Your task to perform on an android device: turn on priority inbox in the gmail app Image 0: 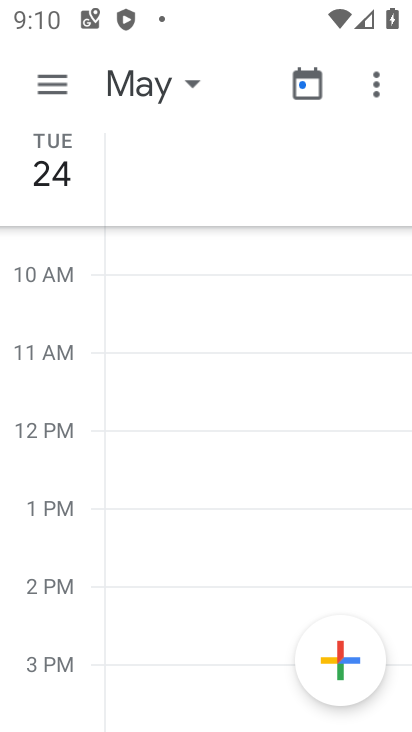
Step 0: press home button
Your task to perform on an android device: turn on priority inbox in the gmail app Image 1: 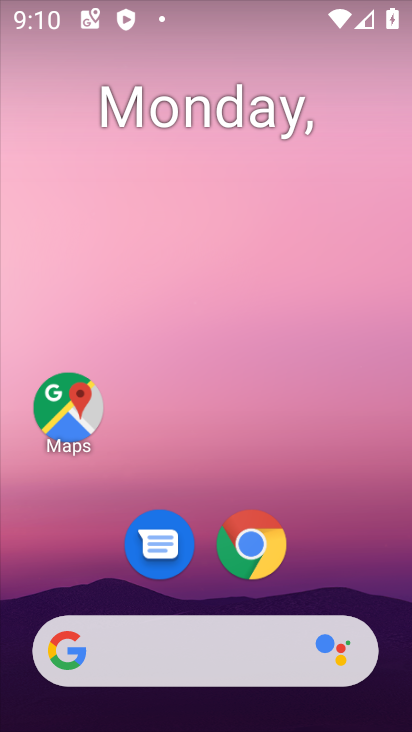
Step 1: drag from (324, 572) to (296, 342)
Your task to perform on an android device: turn on priority inbox in the gmail app Image 2: 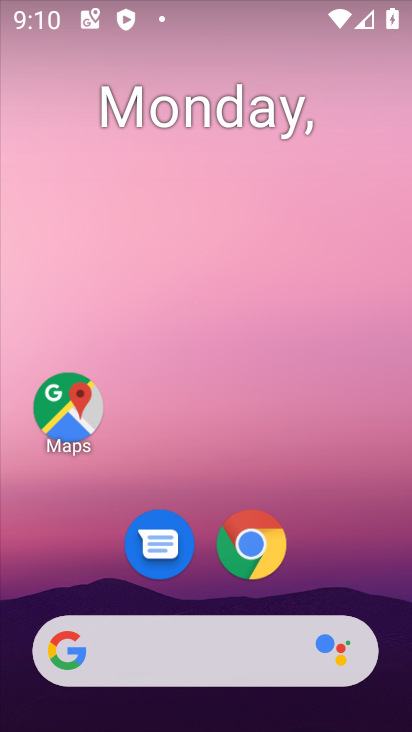
Step 2: drag from (315, 454) to (296, 15)
Your task to perform on an android device: turn on priority inbox in the gmail app Image 3: 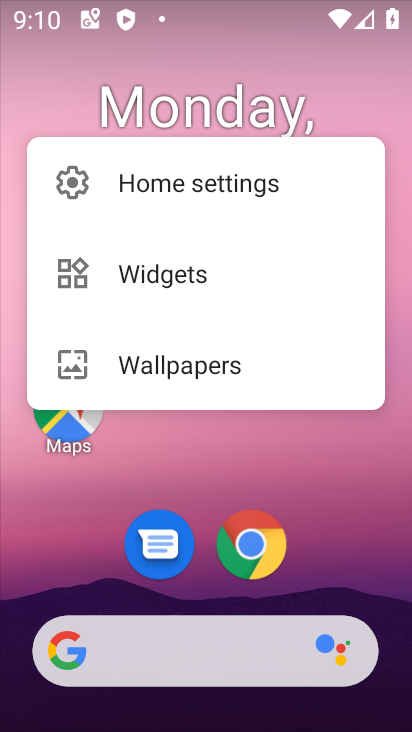
Step 3: click (309, 457)
Your task to perform on an android device: turn on priority inbox in the gmail app Image 4: 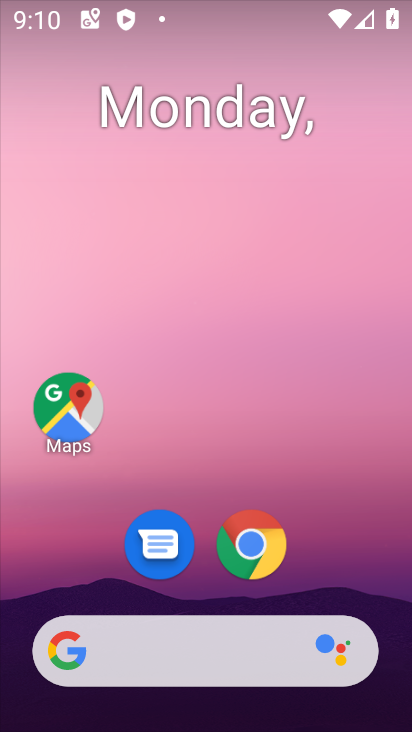
Step 4: drag from (342, 571) to (278, 74)
Your task to perform on an android device: turn on priority inbox in the gmail app Image 5: 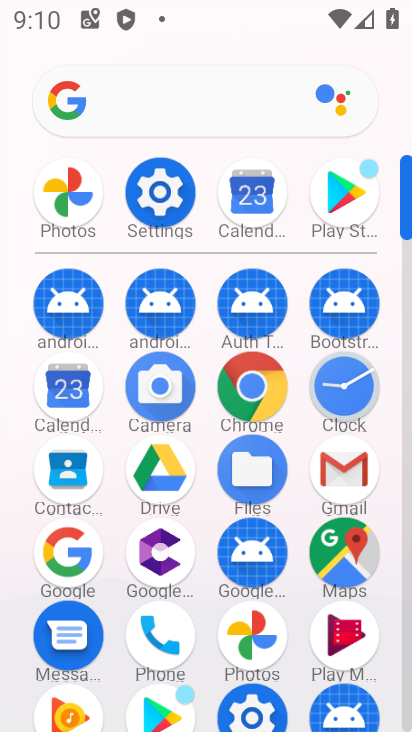
Step 5: click (332, 461)
Your task to perform on an android device: turn on priority inbox in the gmail app Image 6: 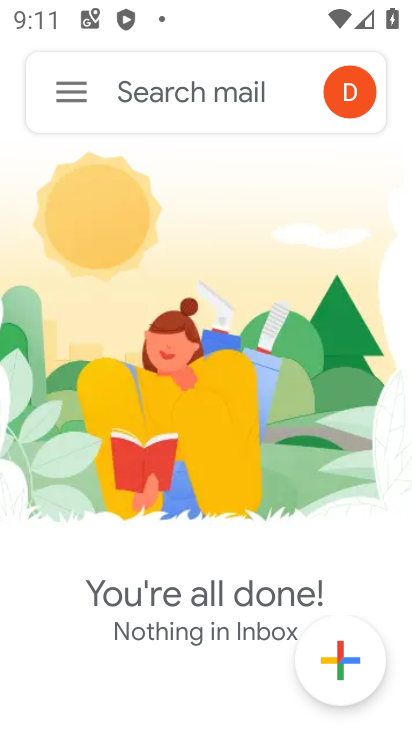
Step 6: click (70, 95)
Your task to perform on an android device: turn on priority inbox in the gmail app Image 7: 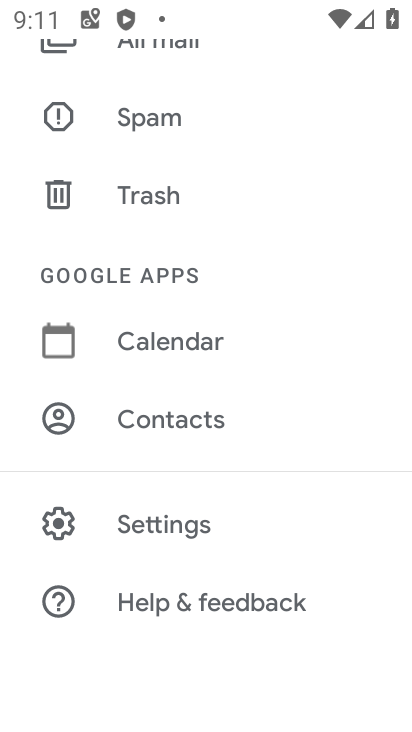
Step 7: click (175, 524)
Your task to perform on an android device: turn on priority inbox in the gmail app Image 8: 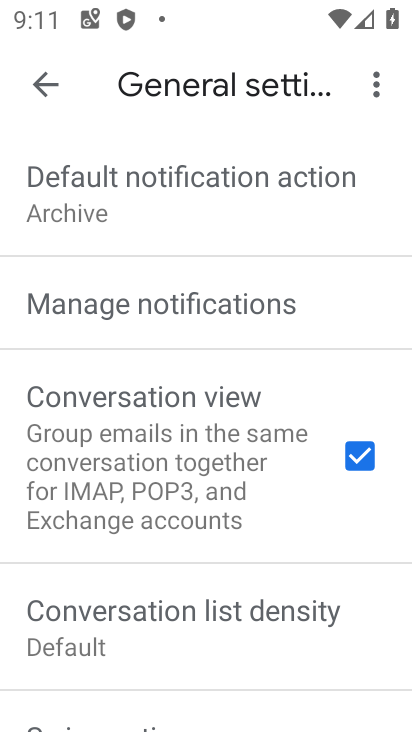
Step 8: click (48, 87)
Your task to perform on an android device: turn on priority inbox in the gmail app Image 9: 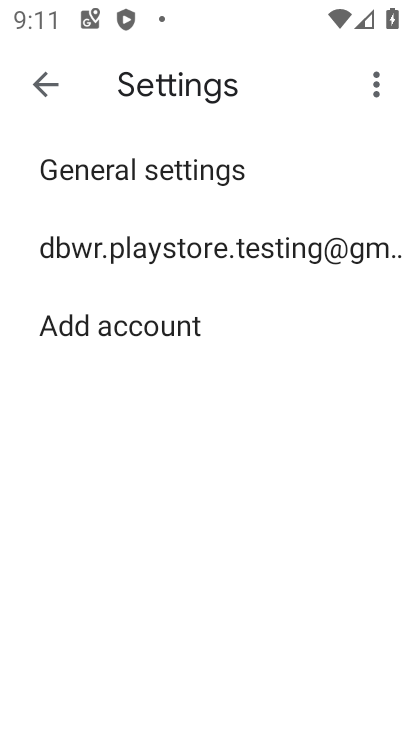
Step 9: click (163, 239)
Your task to perform on an android device: turn on priority inbox in the gmail app Image 10: 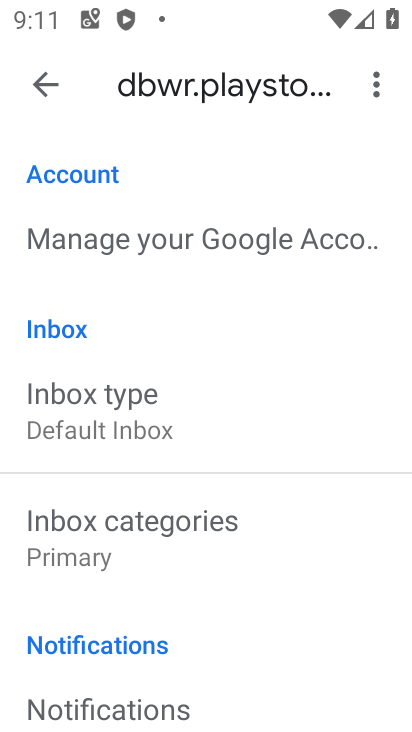
Step 10: click (99, 419)
Your task to perform on an android device: turn on priority inbox in the gmail app Image 11: 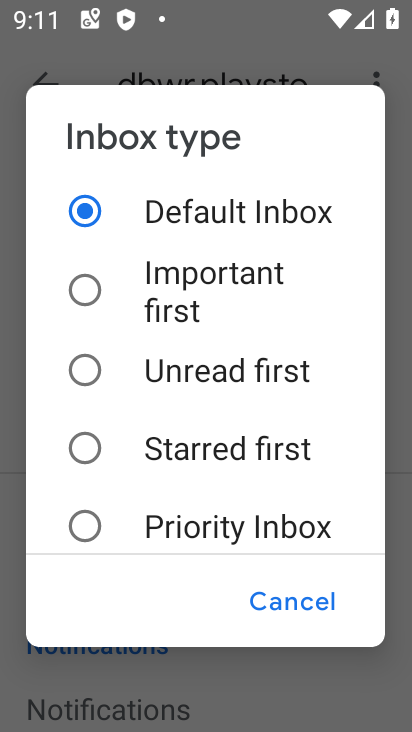
Step 11: click (83, 522)
Your task to perform on an android device: turn on priority inbox in the gmail app Image 12: 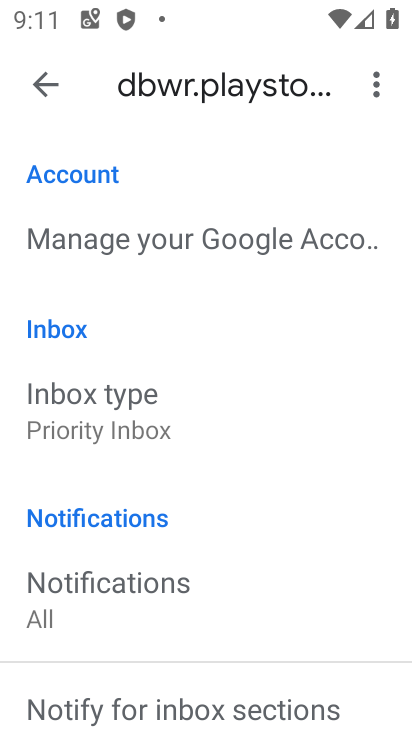
Step 12: task complete